Your task to perform on an android device: What's the weather today? Image 0: 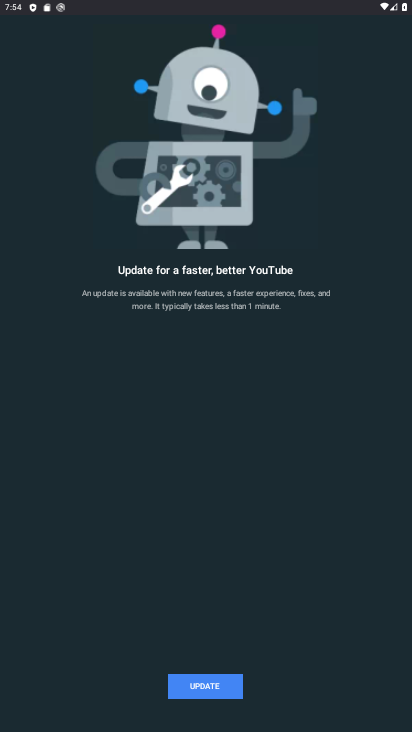
Step 0: press home button
Your task to perform on an android device: What's the weather today? Image 1: 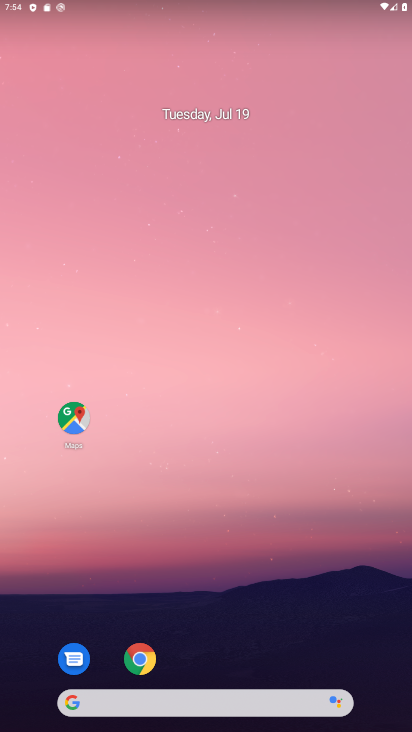
Step 1: drag from (295, 611) to (411, 26)
Your task to perform on an android device: What's the weather today? Image 2: 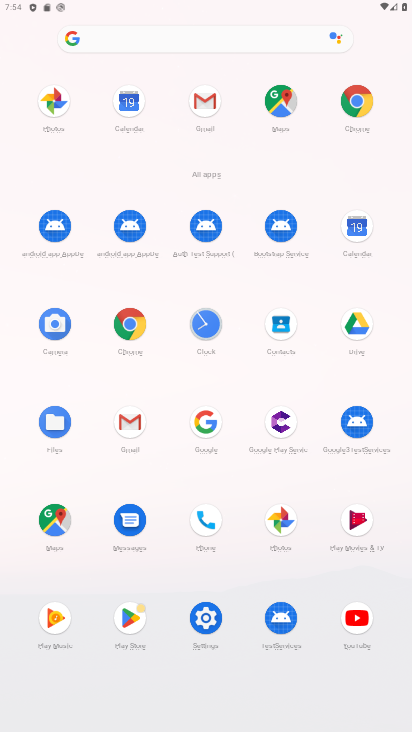
Step 2: click (125, 323)
Your task to perform on an android device: What's the weather today? Image 3: 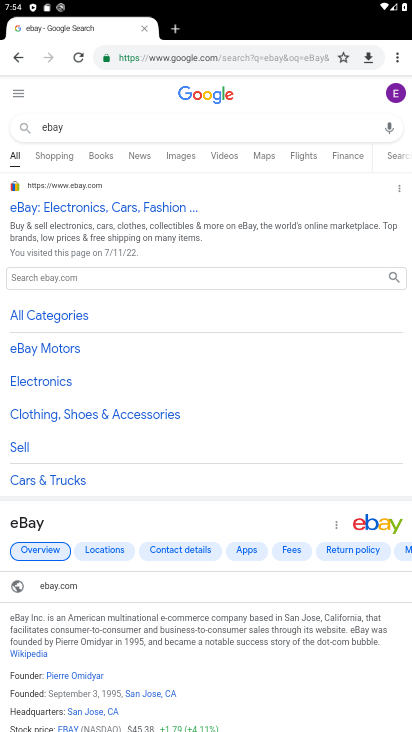
Step 3: click (261, 50)
Your task to perform on an android device: What's the weather today? Image 4: 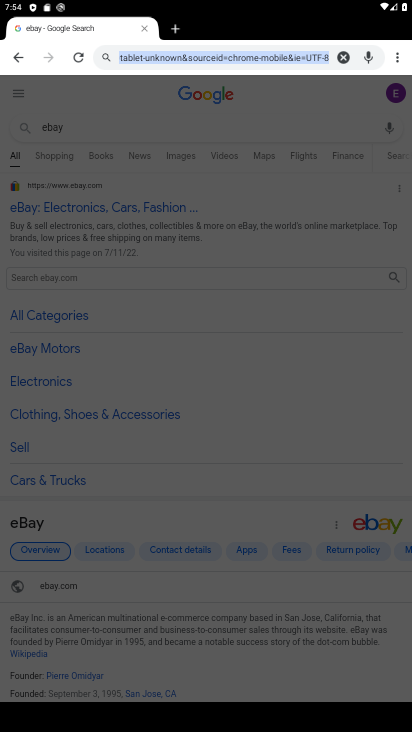
Step 4: click (341, 59)
Your task to perform on an android device: What's the weather today? Image 5: 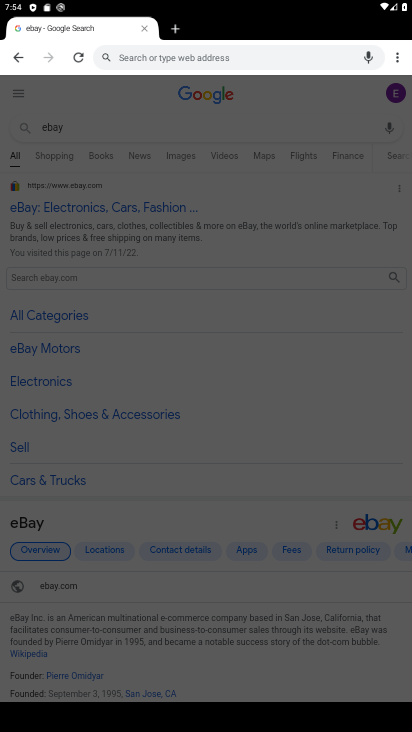
Step 5: type "What's the weather today?"
Your task to perform on an android device: What's the weather today? Image 6: 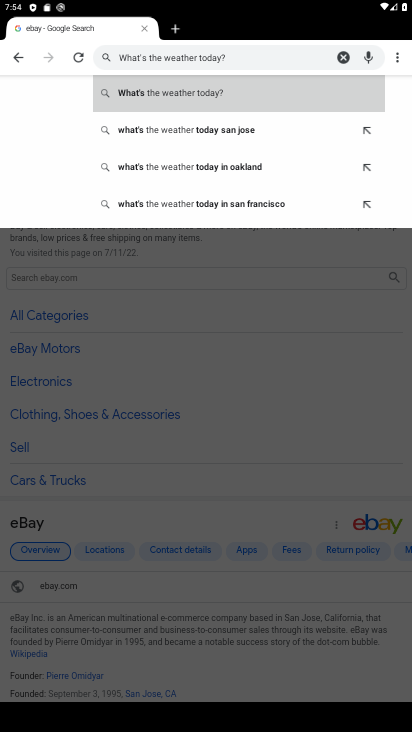
Step 6: click (151, 89)
Your task to perform on an android device: What's the weather today? Image 7: 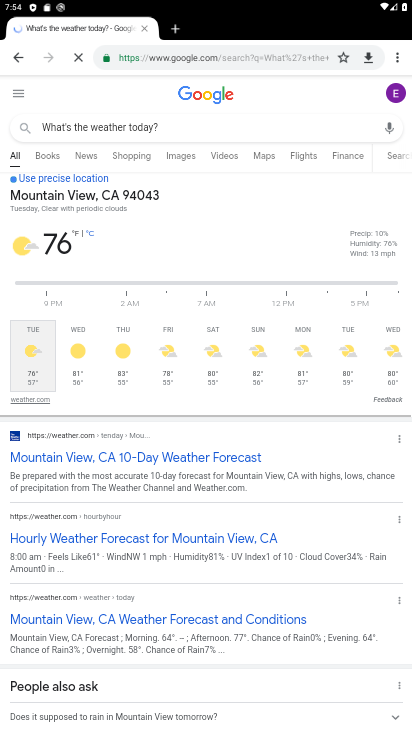
Step 7: task complete